Your task to perform on an android device: What's the weather going to be tomorrow? Image 0: 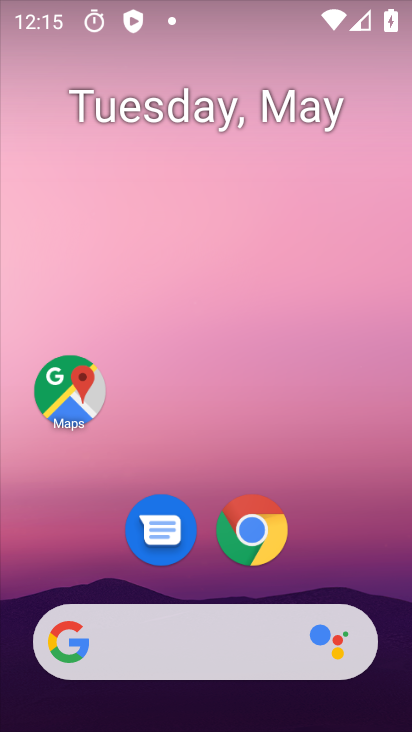
Step 0: drag from (335, 558) to (253, 0)
Your task to perform on an android device: What's the weather going to be tomorrow? Image 1: 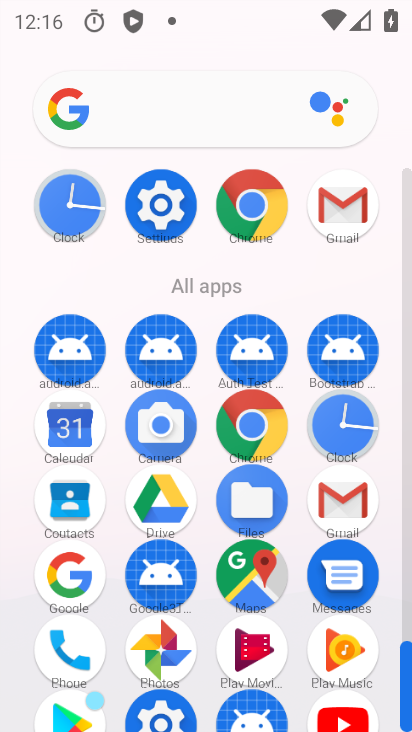
Step 1: drag from (12, 591) to (0, 190)
Your task to perform on an android device: What's the weather going to be tomorrow? Image 2: 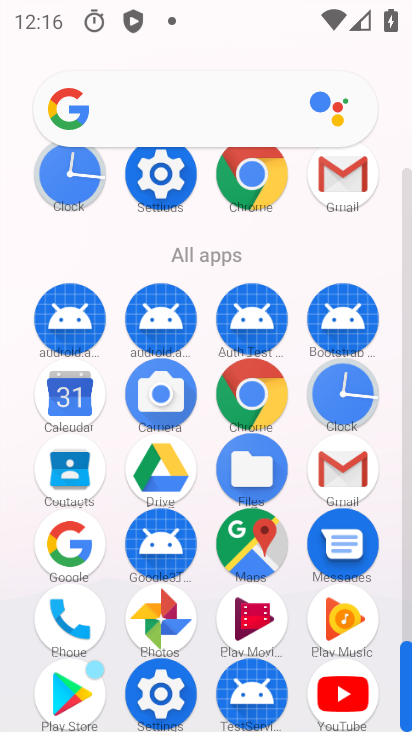
Step 2: click (257, 385)
Your task to perform on an android device: What's the weather going to be tomorrow? Image 3: 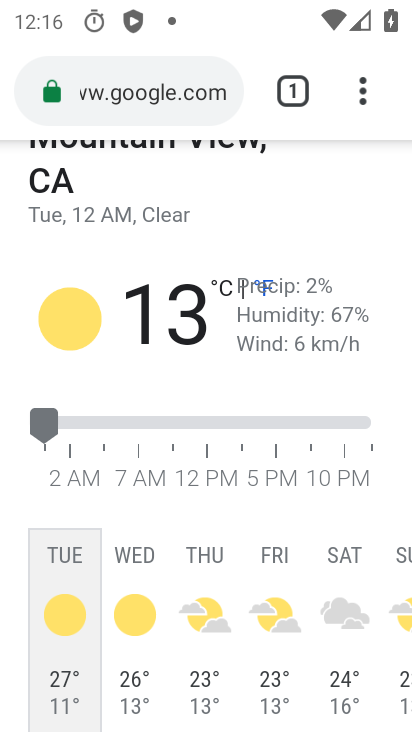
Step 3: drag from (257, 199) to (265, 602)
Your task to perform on an android device: What's the weather going to be tomorrow? Image 4: 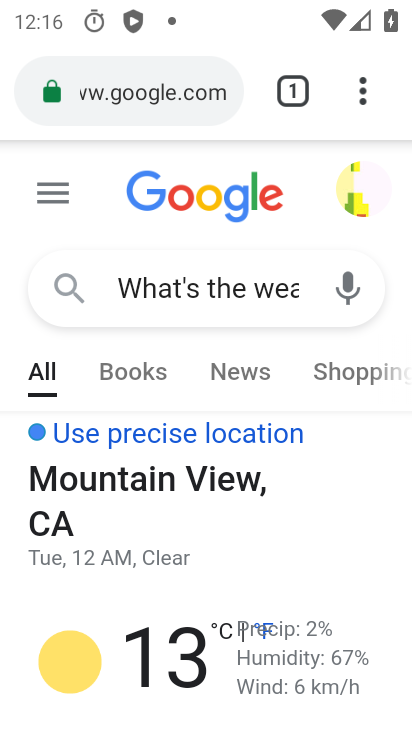
Step 4: click (120, 92)
Your task to perform on an android device: What's the weather going to be tomorrow? Image 5: 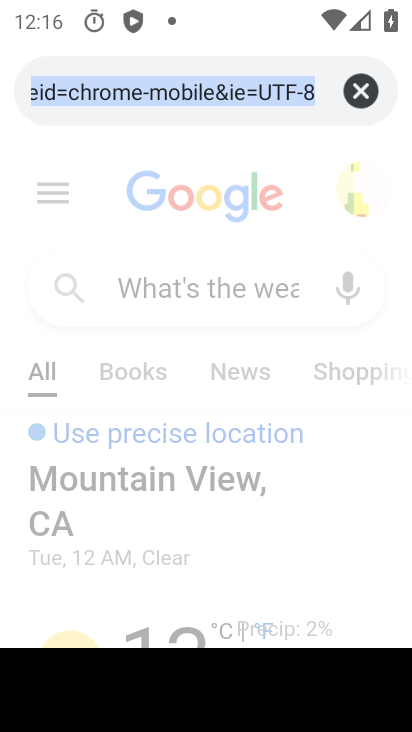
Step 5: click (358, 85)
Your task to perform on an android device: What's the weather going to be tomorrow? Image 6: 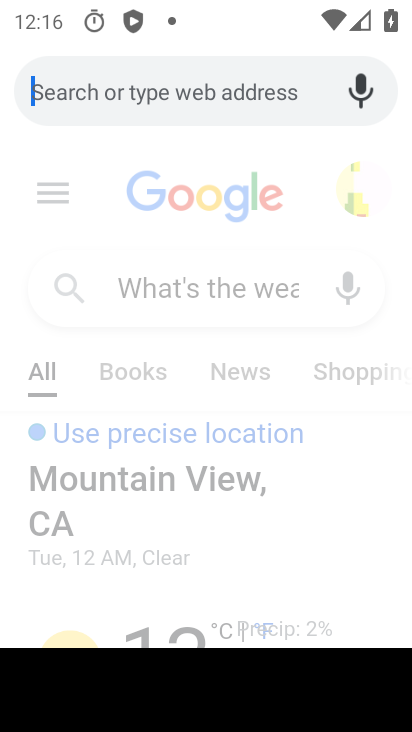
Step 6: type "What's the weather going to be tomorrow?"
Your task to perform on an android device: What's the weather going to be tomorrow? Image 7: 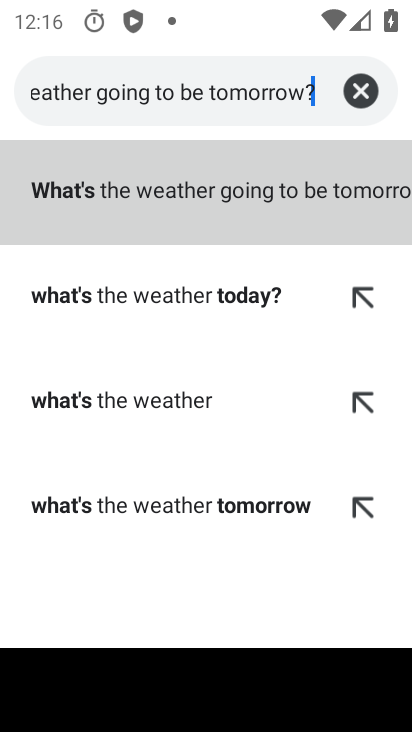
Step 7: type ""
Your task to perform on an android device: What's the weather going to be tomorrow? Image 8: 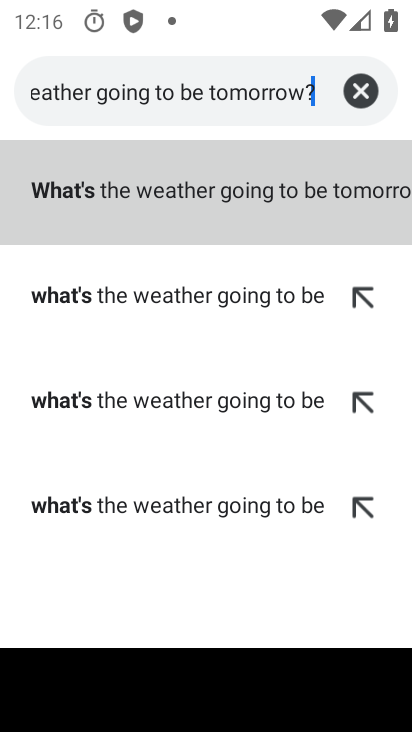
Step 8: click (282, 161)
Your task to perform on an android device: What's the weather going to be tomorrow? Image 9: 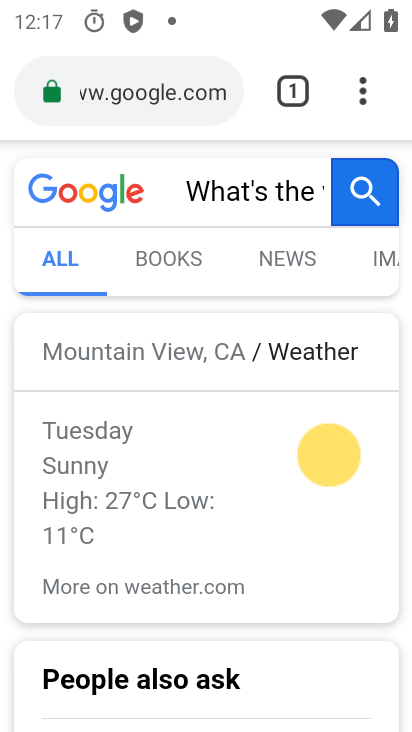
Step 9: task complete